Your task to perform on an android device: Turn off the flashlight Image 0: 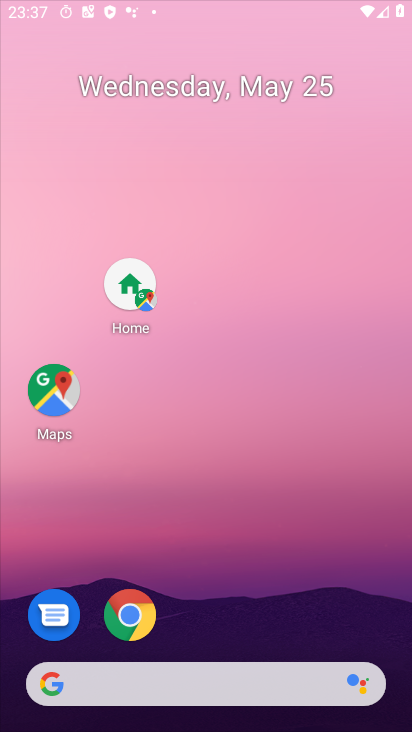
Step 0: press home button
Your task to perform on an android device: Turn off the flashlight Image 1: 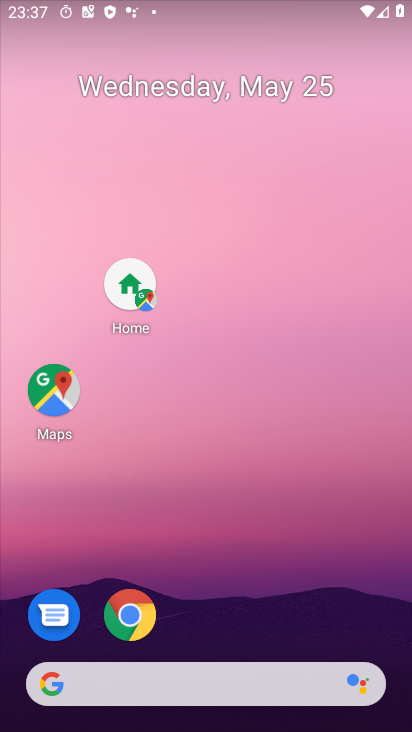
Step 1: task complete